Your task to perform on an android device: What's on my calendar tomorrow? Image 0: 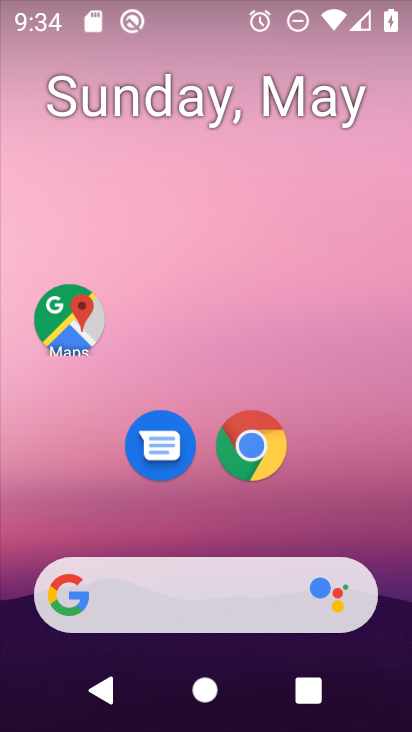
Step 0: drag from (303, 494) to (297, 105)
Your task to perform on an android device: What's on my calendar tomorrow? Image 1: 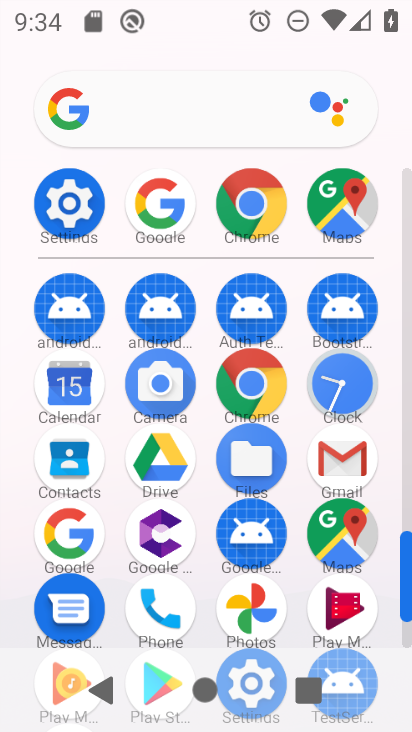
Step 1: click (81, 382)
Your task to perform on an android device: What's on my calendar tomorrow? Image 2: 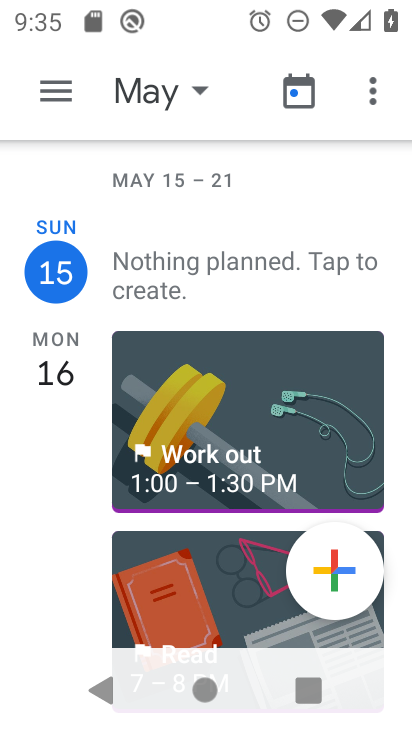
Step 2: click (63, 356)
Your task to perform on an android device: What's on my calendar tomorrow? Image 3: 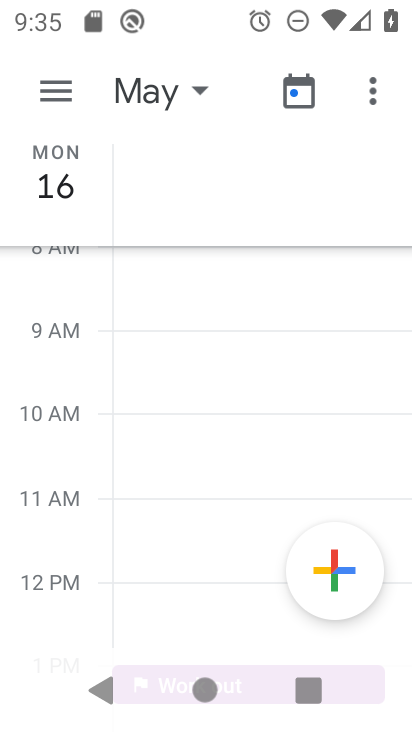
Step 3: task complete